Your task to perform on an android device: see sites visited before in the chrome app Image 0: 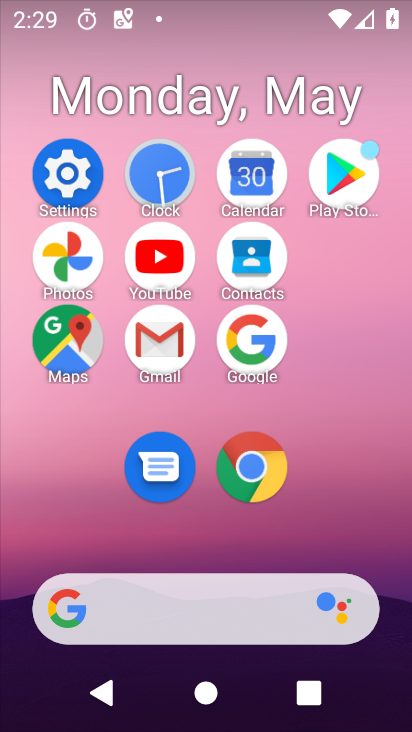
Step 0: click (274, 492)
Your task to perform on an android device: see sites visited before in the chrome app Image 1: 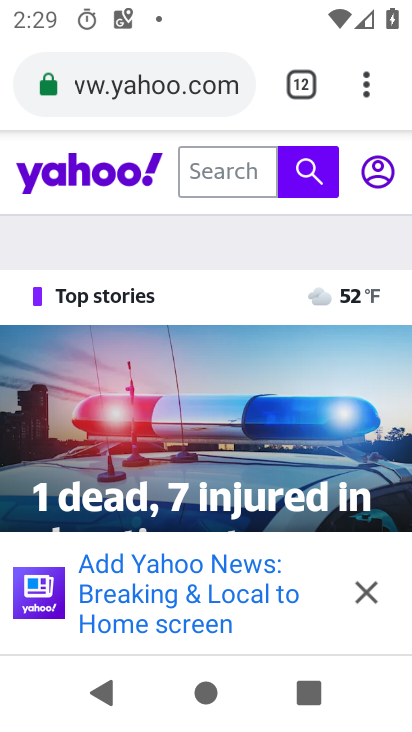
Step 1: click (380, 67)
Your task to perform on an android device: see sites visited before in the chrome app Image 2: 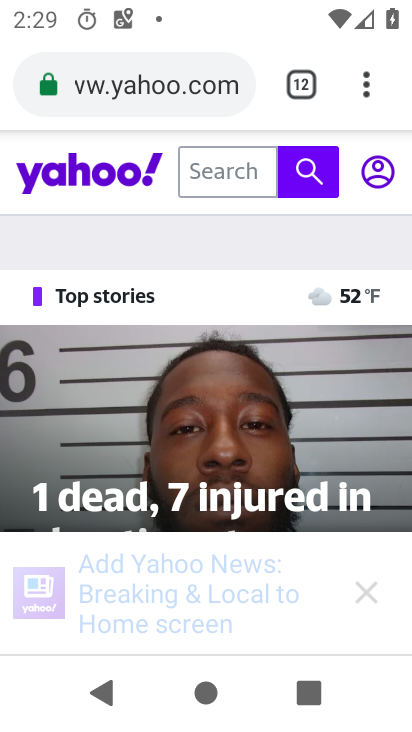
Step 2: click (372, 75)
Your task to perform on an android device: see sites visited before in the chrome app Image 3: 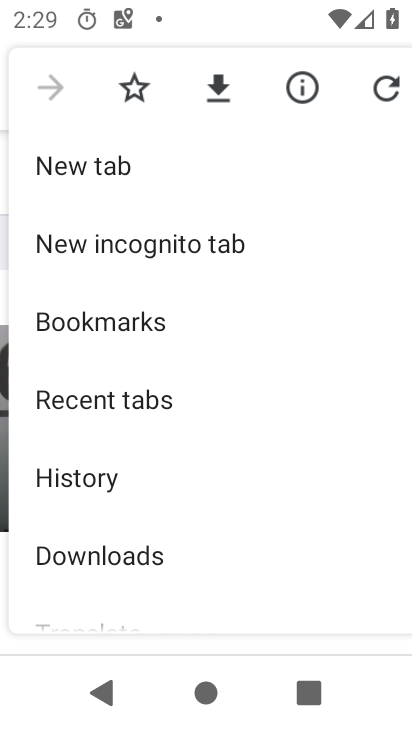
Step 3: drag from (167, 475) to (178, 136)
Your task to perform on an android device: see sites visited before in the chrome app Image 4: 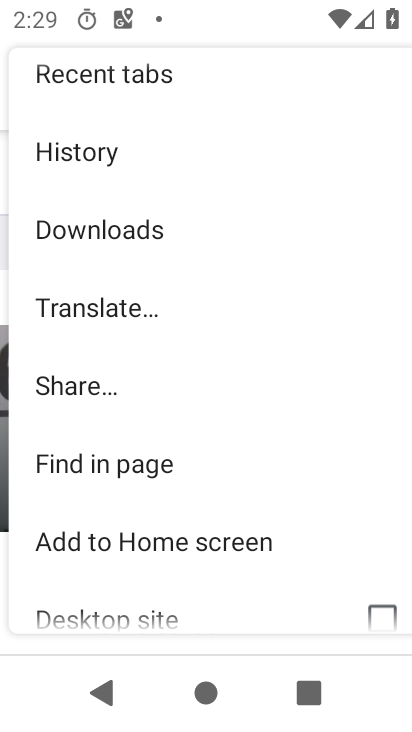
Step 4: drag from (181, 176) to (214, 612)
Your task to perform on an android device: see sites visited before in the chrome app Image 5: 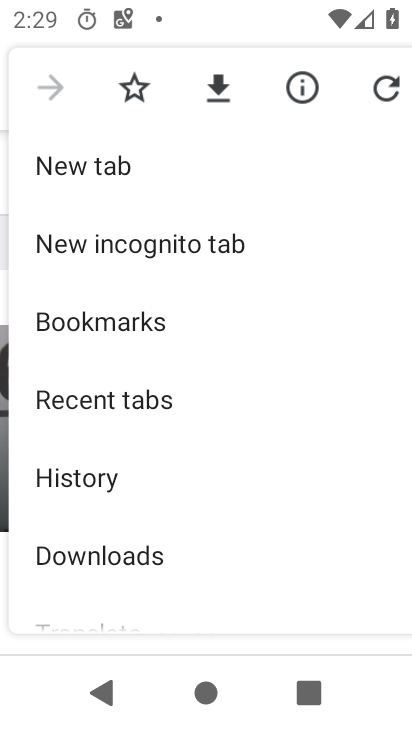
Step 5: drag from (198, 528) to (196, 272)
Your task to perform on an android device: see sites visited before in the chrome app Image 6: 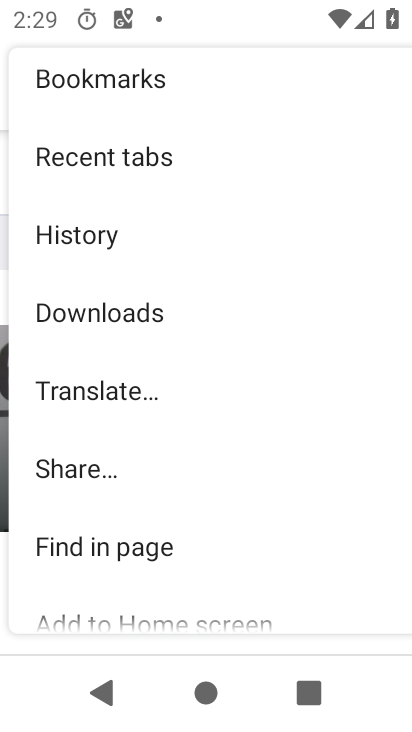
Step 6: click (141, 161)
Your task to perform on an android device: see sites visited before in the chrome app Image 7: 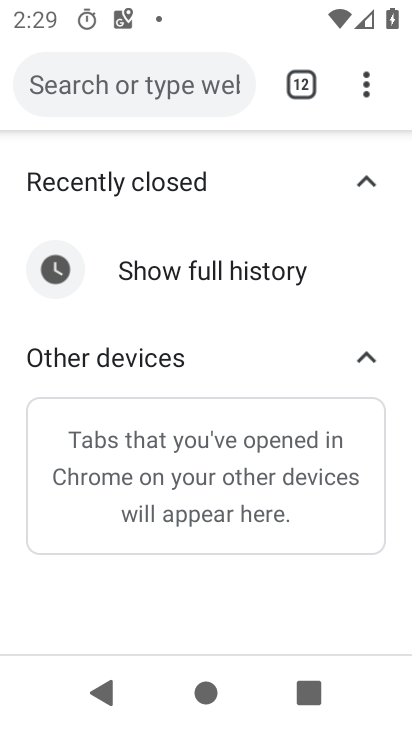
Step 7: click (144, 254)
Your task to perform on an android device: see sites visited before in the chrome app Image 8: 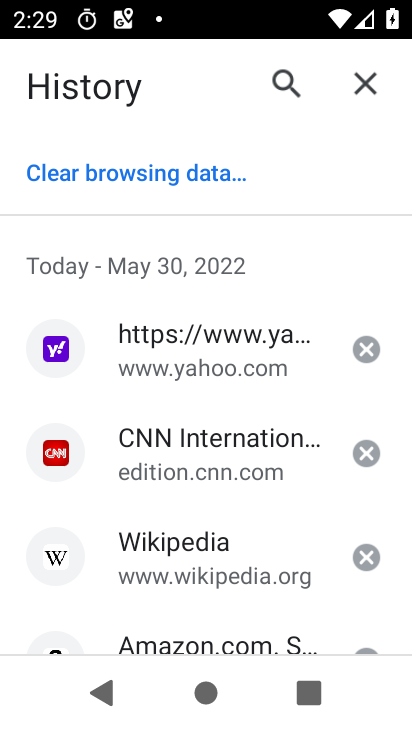
Step 8: task complete